Your task to perform on an android device: toggle notifications settings in the gmail app Image 0: 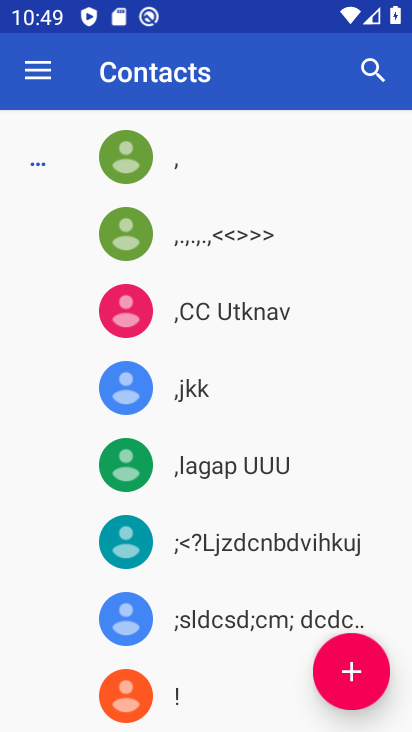
Step 0: press home button
Your task to perform on an android device: toggle notifications settings in the gmail app Image 1: 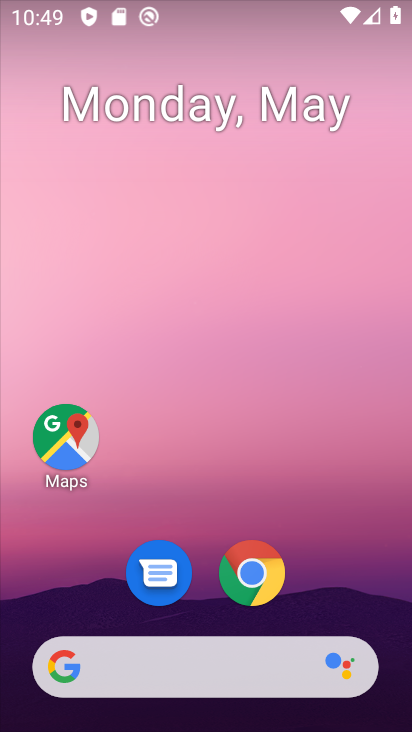
Step 1: click (244, 582)
Your task to perform on an android device: toggle notifications settings in the gmail app Image 2: 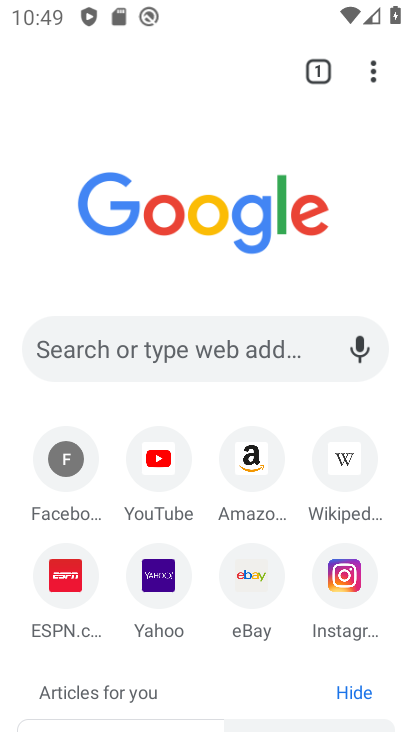
Step 2: press home button
Your task to perform on an android device: toggle notifications settings in the gmail app Image 3: 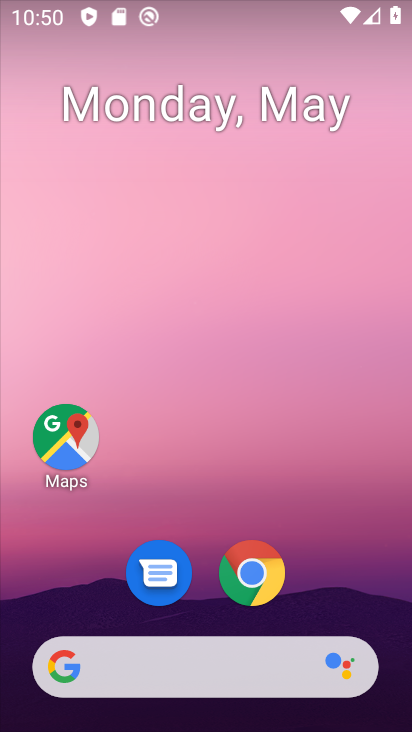
Step 3: drag from (243, 634) to (260, 111)
Your task to perform on an android device: toggle notifications settings in the gmail app Image 4: 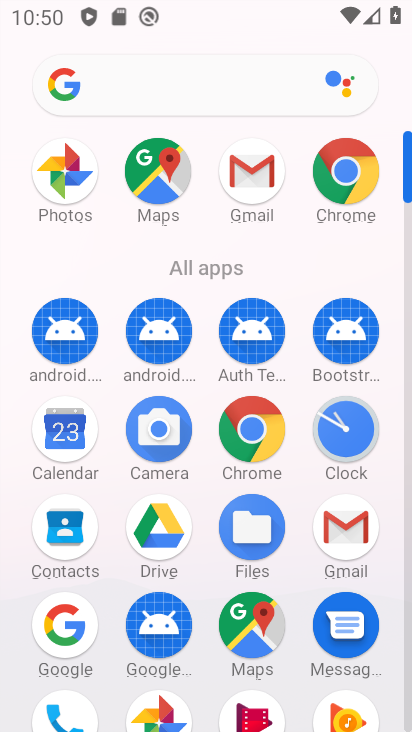
Step 4: click (252, 184)
Your task to perform on an android device: toggle notifications settings in the gmail app Image 5: 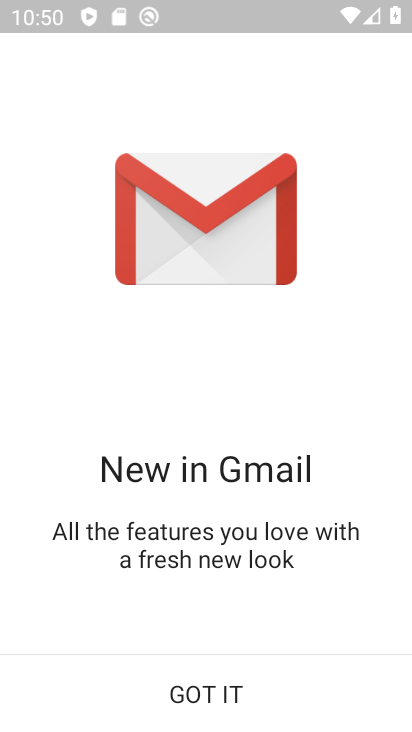
Step 5: click (212, 698)
Your task to perform on an android device: toggle notifications settings in the gmail app Image 6: 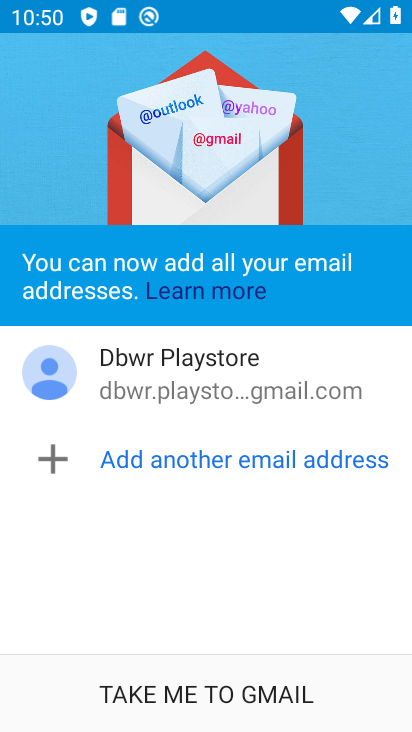
Step 6: click (212, 698)
Your task to perform on an android device: toggle notifications settings in the gmail app Image 7: 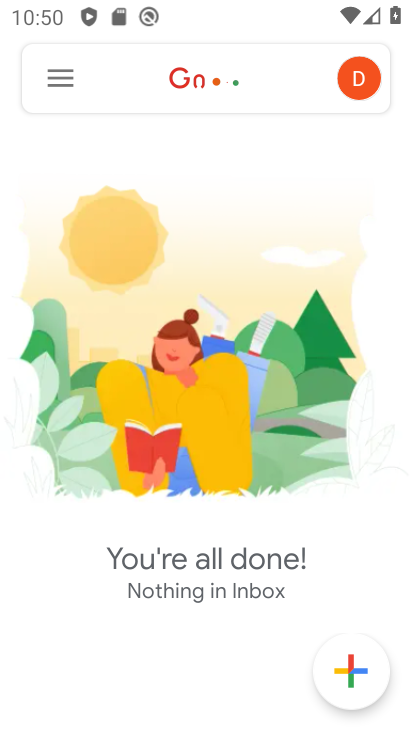
Step 7: click (59, 81)
Your task to perform on an android device: toggle notifications settings in the gmail app Image 8: 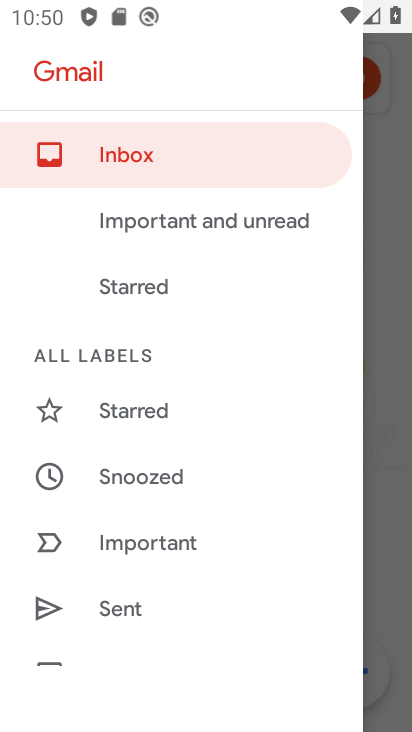
Step 8: drag from (147, 635) to (162, 139)
Your task to perform on an android device: toggle notifications settings in the gmail app Image 9: 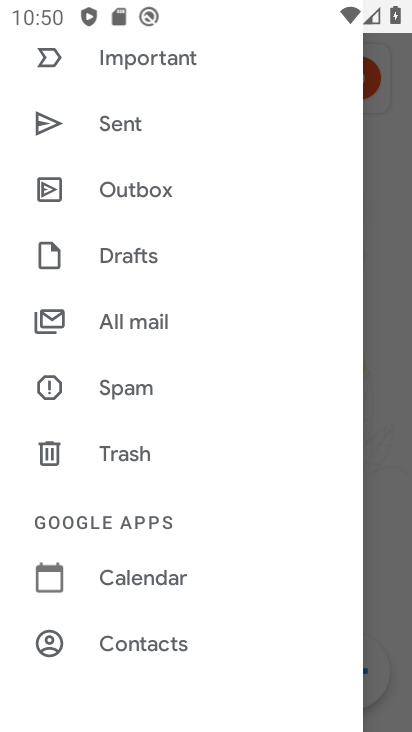
Step 9: drag from (176, 619) to (204, 130)
Your task to perform on an android device: toggle notifications settings in the gmail app Image 10: 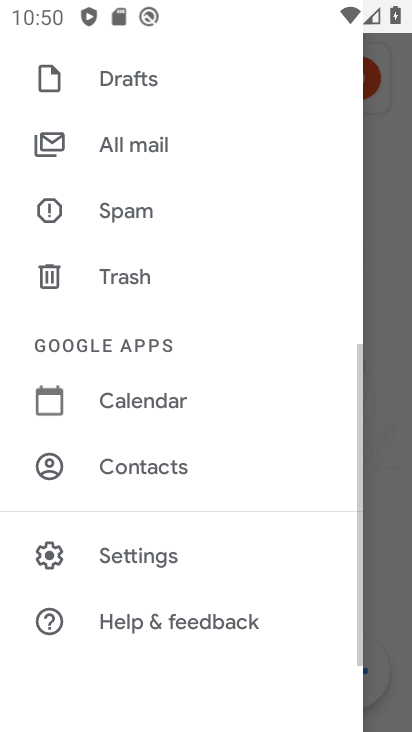
Step 10: click (108, 565)
Your task to perform on an android device: toggle notifications settings in the gmail app Image 11: 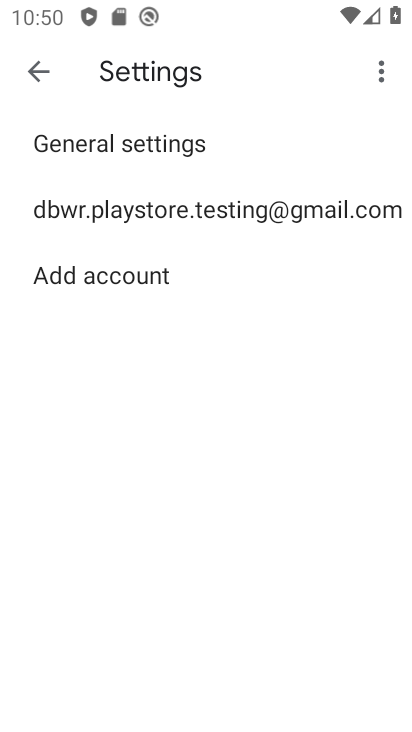
Step 11: click (181, 144)
Your task to perform on an android device: toggle notifications settings in the gmail app Image 12: 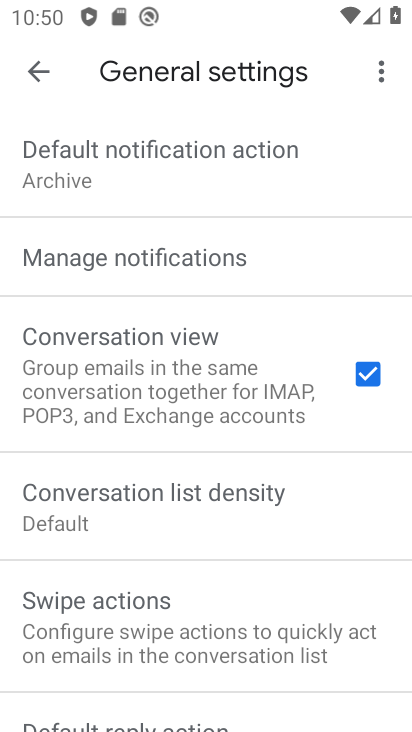
Step 12: click (171, 252)
Your task to perform on an android device: toggle notifications settings in the gmail app Image 13: 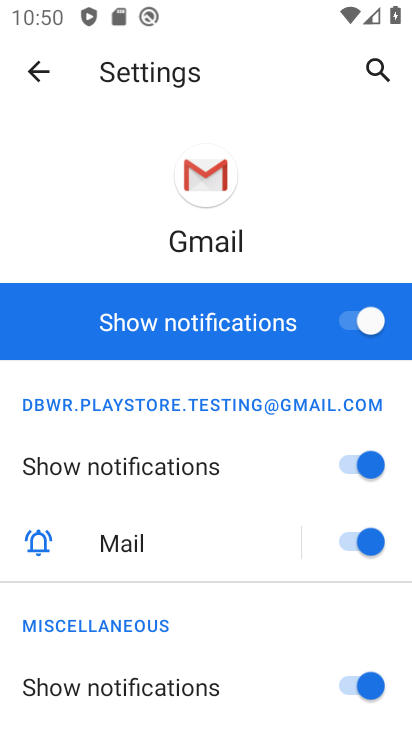
Step 13: click (356, 319)
Your task to perform on an android device: toggle notifications settings in the gmail app Image 14: 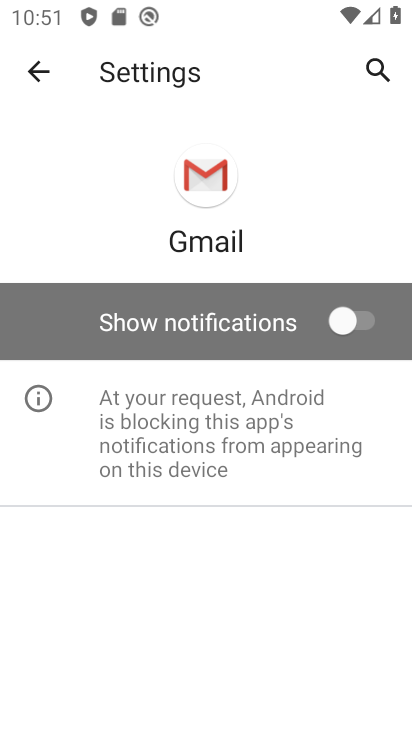
Step 14: task complete